Your task to perform on an android device: change the clock display to analog Image 0: 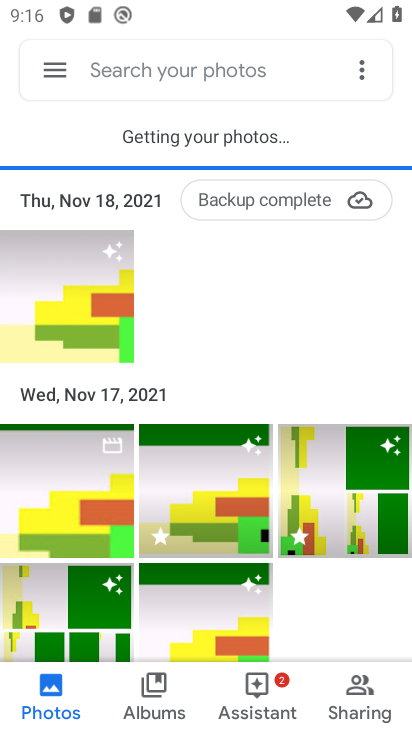
Step 0: press home button
Your task to perform on an android device: change the clock display to analog Image 1: 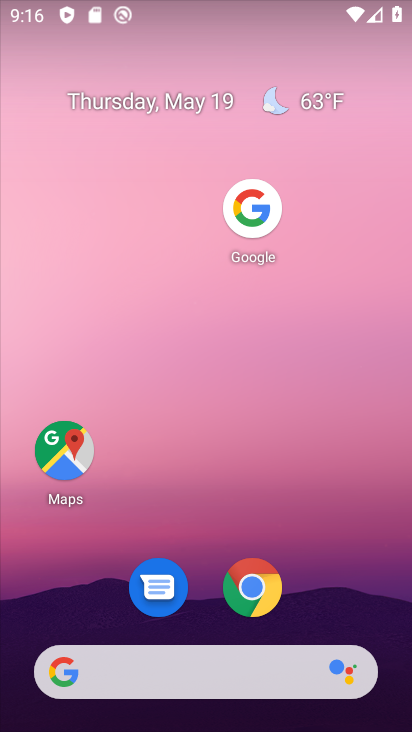
Step 1: drag from (196, 667) to (46, 82)
Your task to perform on an android device: change the clock display to analog Image 2: 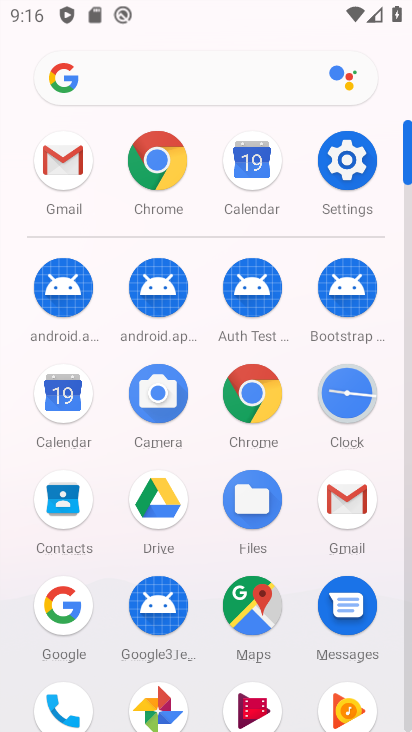
Step 2: click (352, 395)
Your task to perform on an android device: change the clock display to analog Image 3: 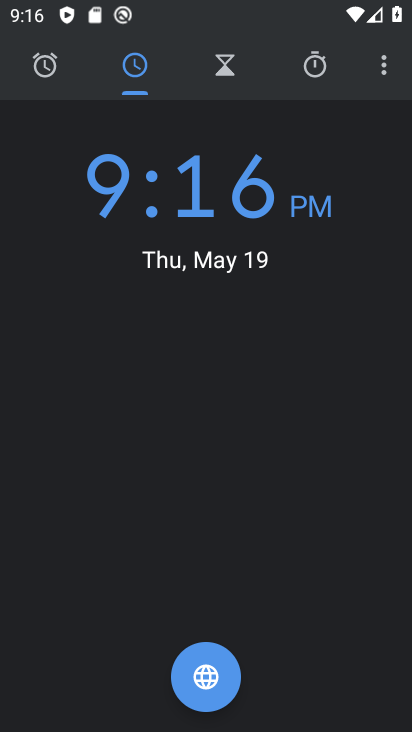
Step 3: click (393, 72)
Your task to perform on an android device: change the clock display to analog Image 4: 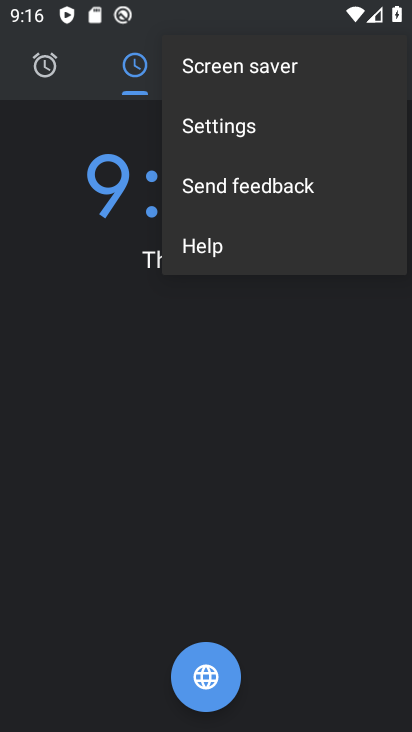
Step 4: click (253, 113)
Your task to perform on an android device: change the clock display to analog Image 5: 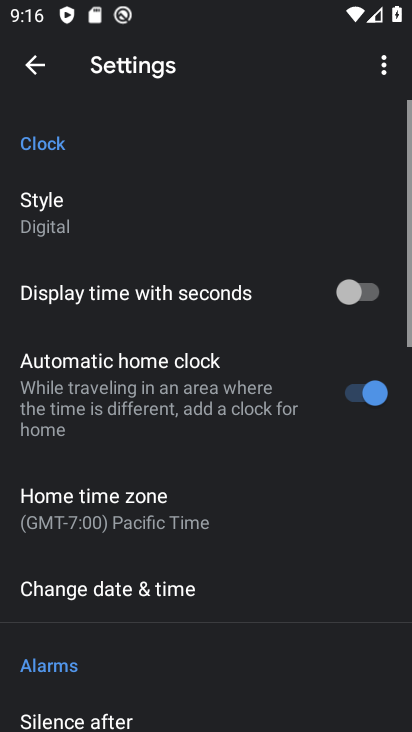
Step 5: click (78, 203)
Your task to perform on an android device: change the clock display to analog Image 6: 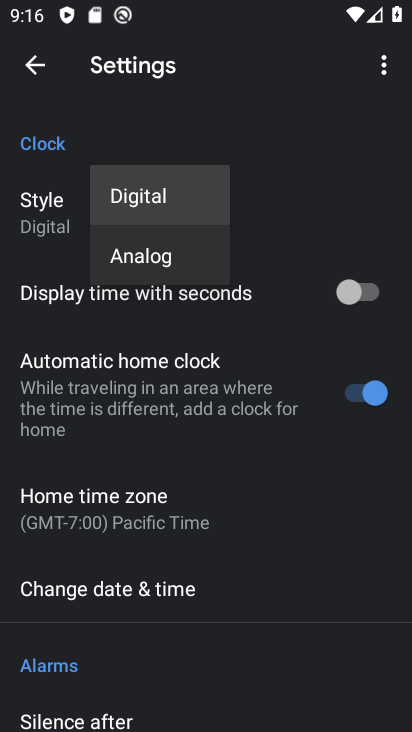
Step 6: click (132, 251)
Your task to perform on an android device: change the clock display to analog Image 7: 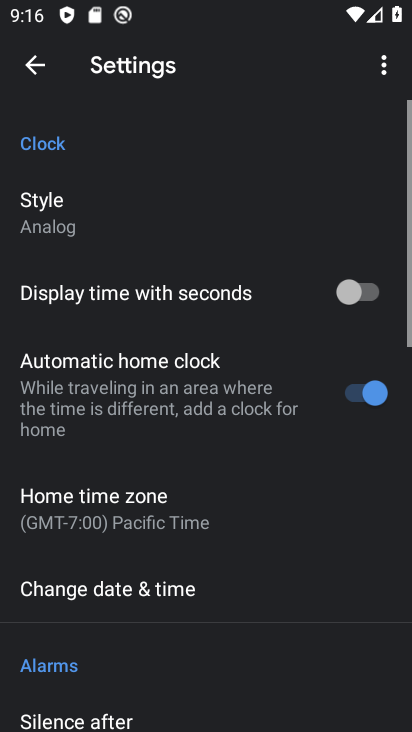
Step 7: task complete